Your task to perform on an android device: Search for seafood restaurants on Google Maps Image 0: 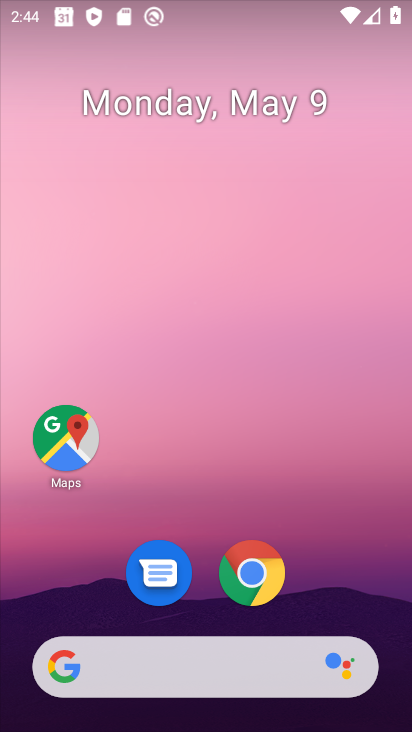
Step 0: click (77, 452)
Your task to perform on an android device: Search for seafood restaurants on Google Maps Image 1: 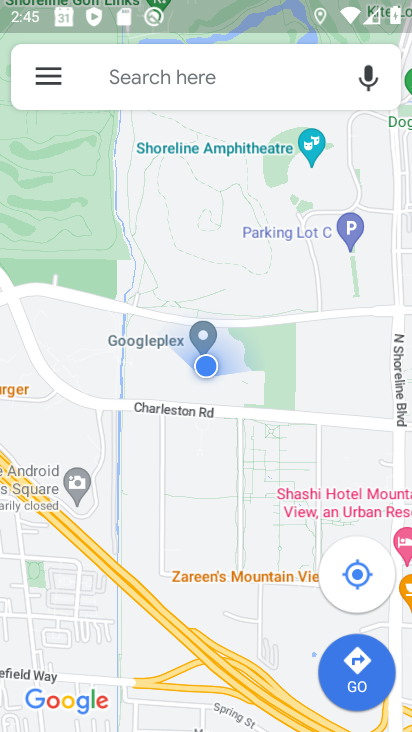
Step 1: click (127, 68)
Your task to perform on an android device: Search for seafood restaurants on Google Maps Image 2: 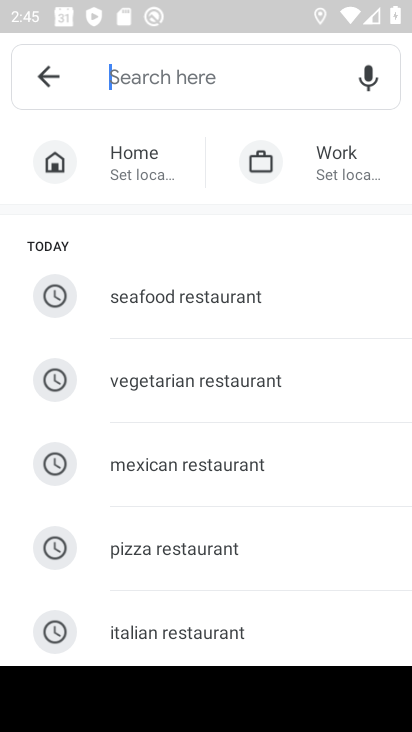
Step 2: click (183, 298)
Your task to perform on an android device: Search for seafood restaurants on Google Maps Image 3: 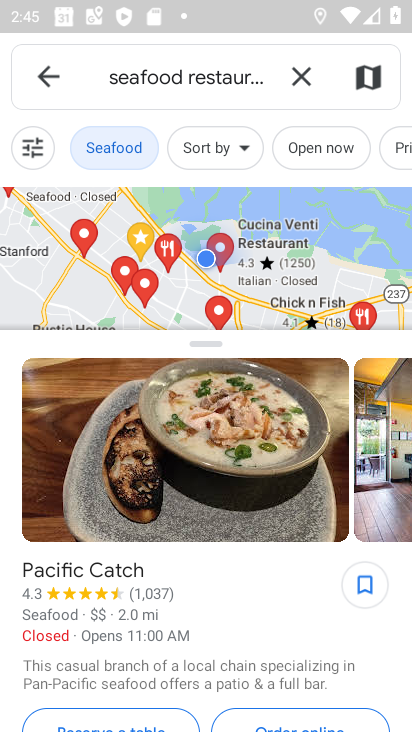
Step 3: task complete